Your task to perform on an android device: turn on location history Image 0: 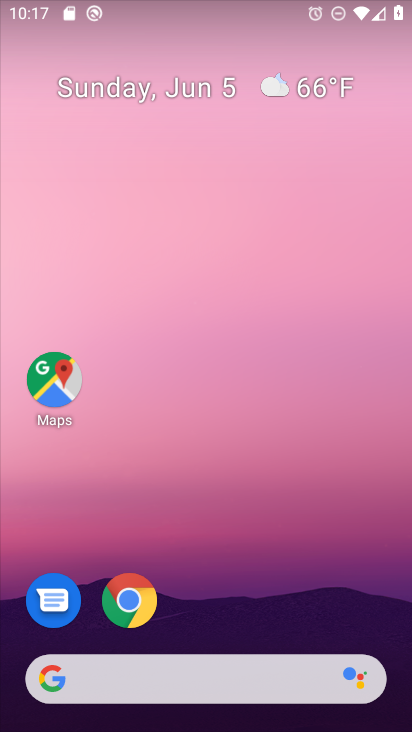
Step 0: drag from (357, 625) to (312, 63)
Your task to perform on an android device: turn on location history Image 1: 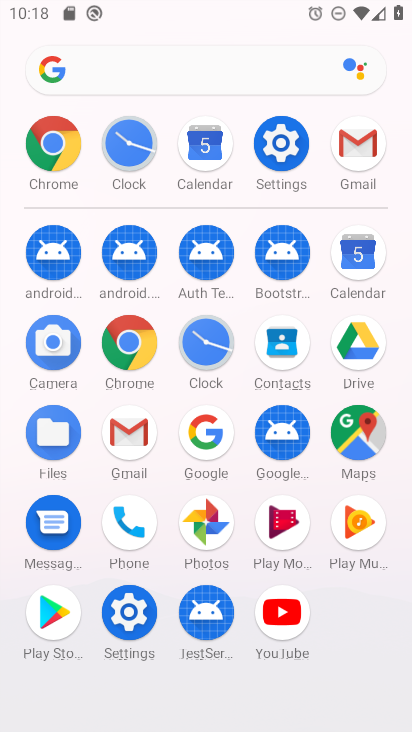
Step 1: click (119, 611)
Your task to perform on an android device: turn on location history Image 2: 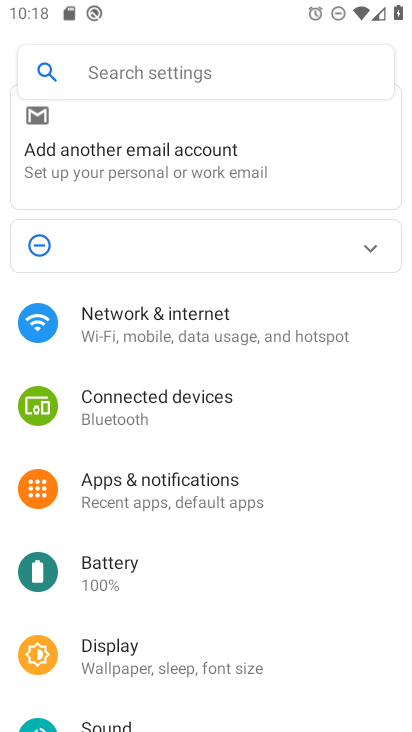
Step 2: drag from (161, 678) to (228, 160)
Your task to perform on an android device: turn on location history Image 3: 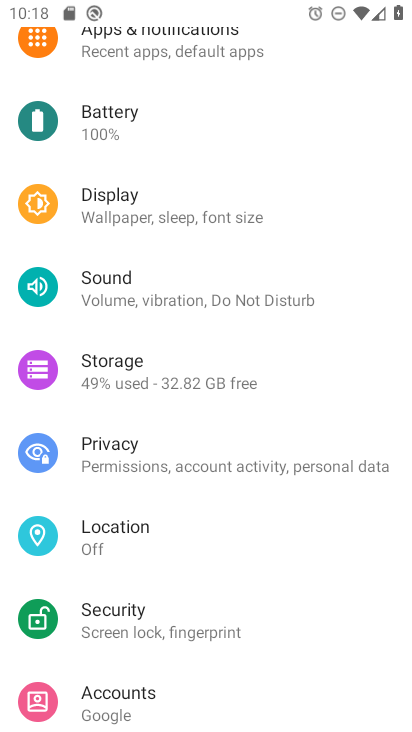
Step 3: click (121, 540)
Your task to perform on an android device: turn on location history Image 4: 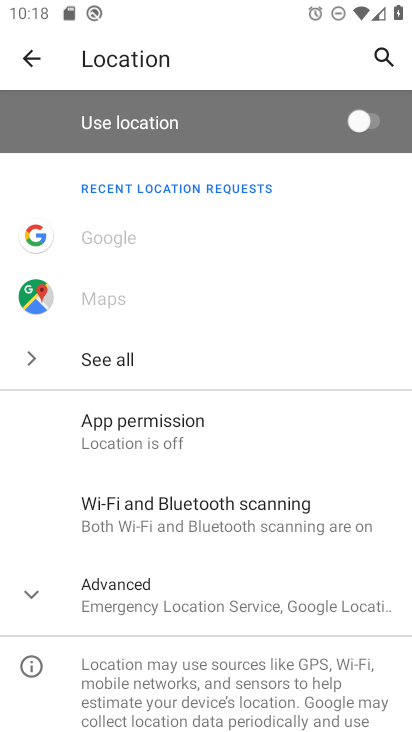
Step 4: click (219, 599)
Your task to perform on an android device: turn on location history Image 5: 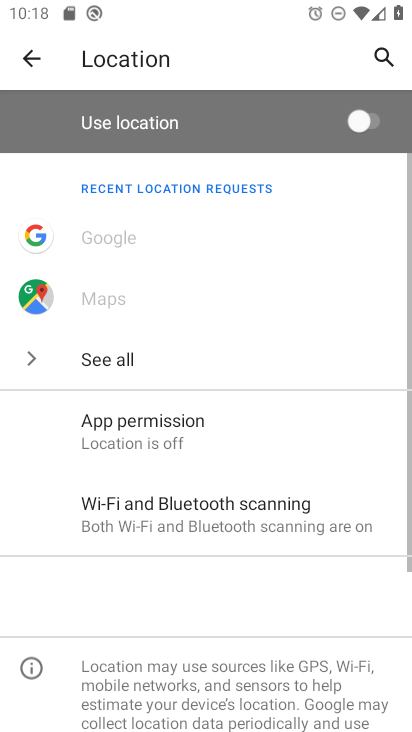
Step 5: drag from (220, 601) to (305, 226)
Your task to perform on an android device: turn on location history Image 6: 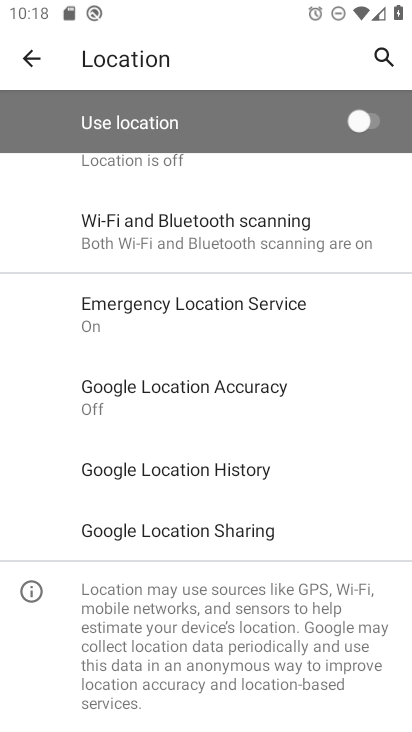
Step 6: click (203, 460)
Your task to perform on an android device: turn on location history Image 7: 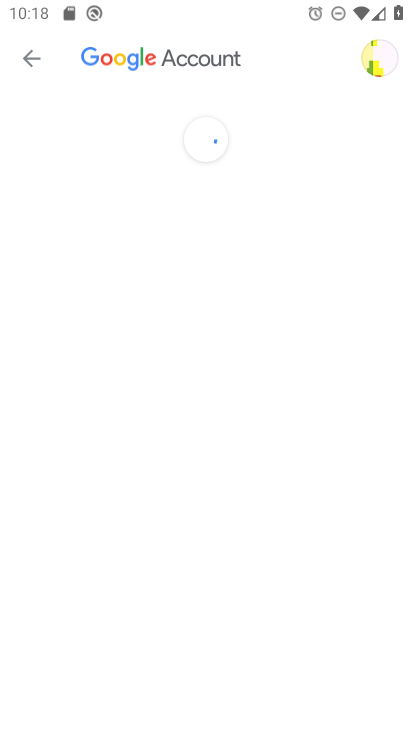
Step 7: task complete